Your task to perform on an android device: toggle pop-ups in chrome Image 0: 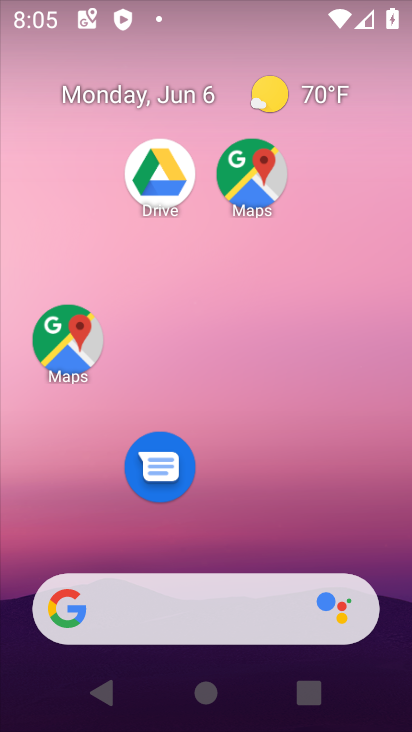
Step 0: drag from (188, 357) to (148, 185)
Your task to perform on an android device: toggle pop-ups in chrome Image 1: 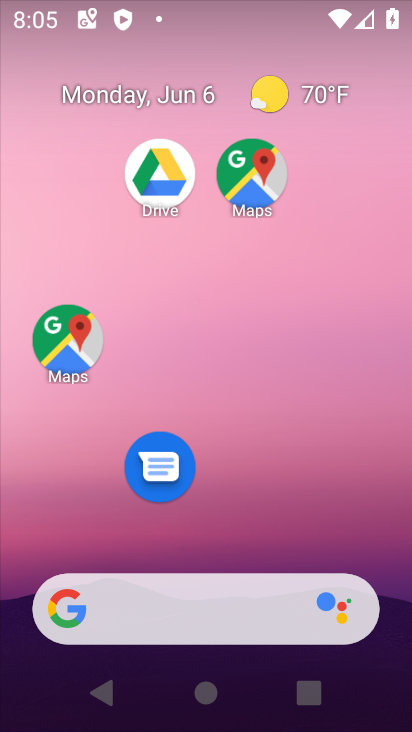
Step 1: drag from (247, 653) to (116, 45)
Your task to perform on an android device: toggle pop-ups in chrome Image 2: 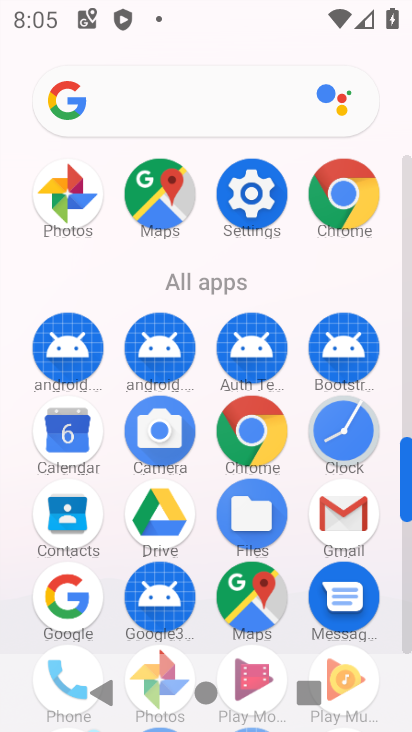
Step 2: click (342, 193)
Your task to perform on an android device: toggle pop-ups in chrome Image 3: 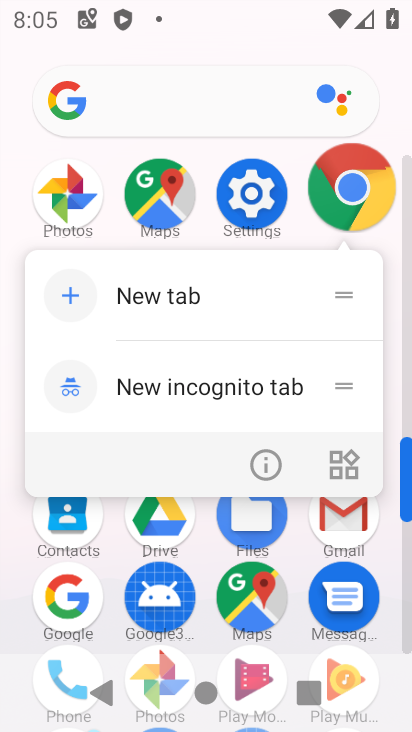
Step 3: click (344, 189)
Your task to perform on an android device: toggle pop-ups in chrome Image 4: 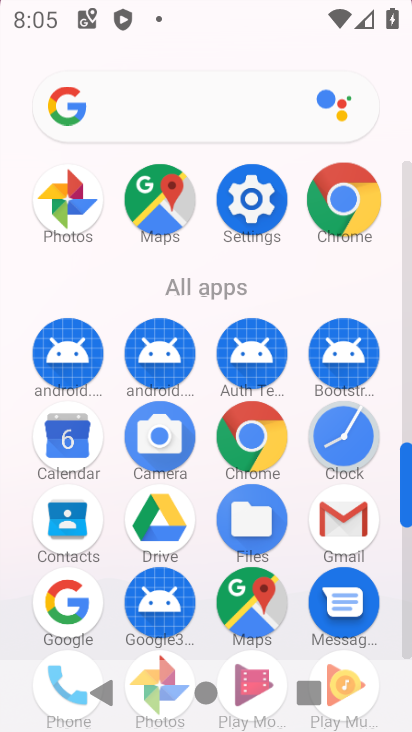
Step 4: click (345, 208)
Your task to perform on an android device: toggle pop-ups in chrome Image 5: 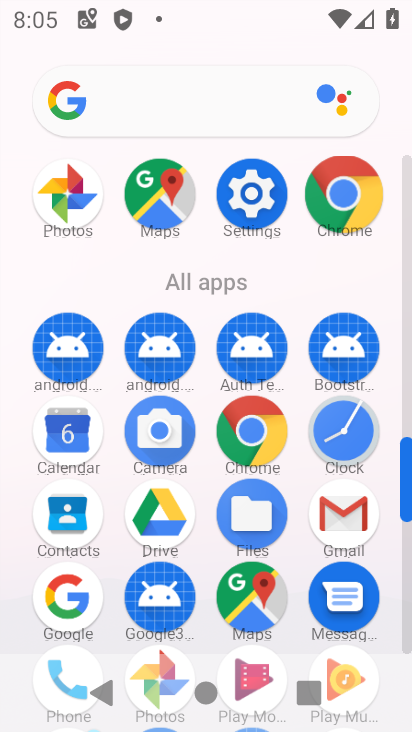
Step 5: click (331, 200)
Your task to perform on an android device: toggle pop-ups in chrome Image 6: 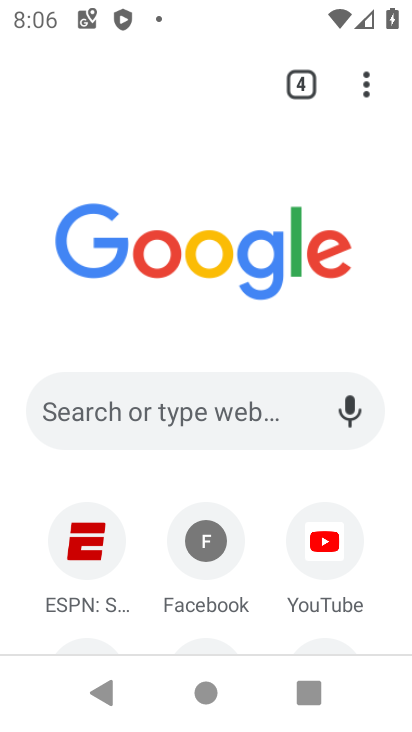
Step 6: click (339, 173)
Your task to perform on an android device: toggle pop-ups in chrome Image 7: 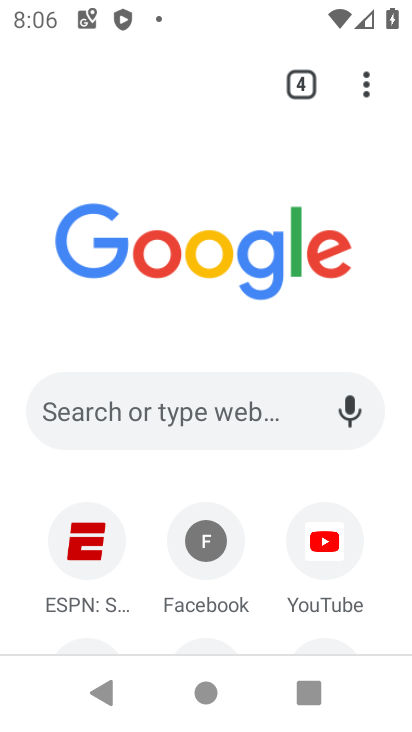
Step 7: click (360, 84)
Your task to perform on an android device: toggle pop-ups in chrome Image 8: 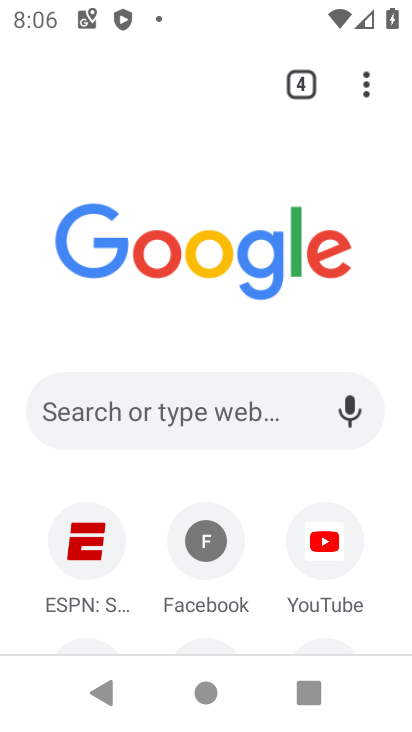
Step 8: click (361, 89)
Your task to perform on an android device: toggle pop-ups in chrome Image 9: 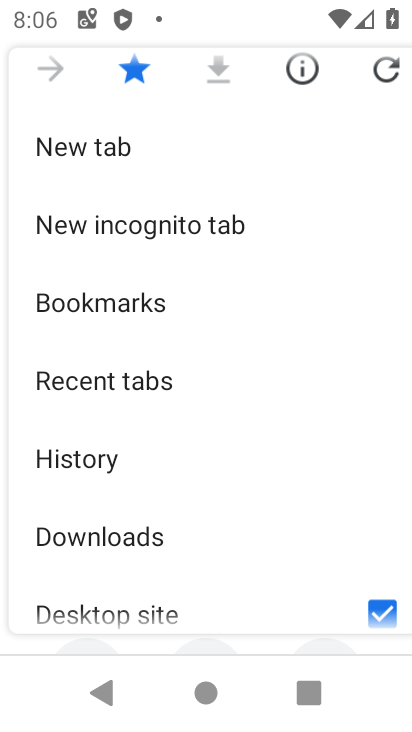
Step 9: click (369, 92)
Your task to perform on an android device: toggle pop-ups in chrome Image 10: 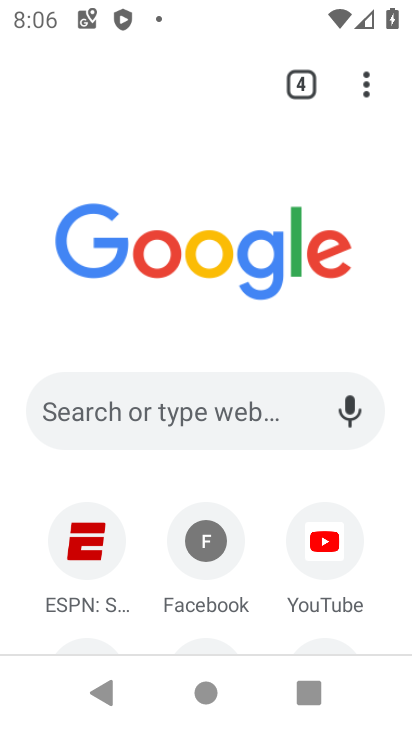
Step 10: drag from (373, 88) to (118, 513)
Your task to perform on an android device: toggle pop-ups in chrome Image 11: 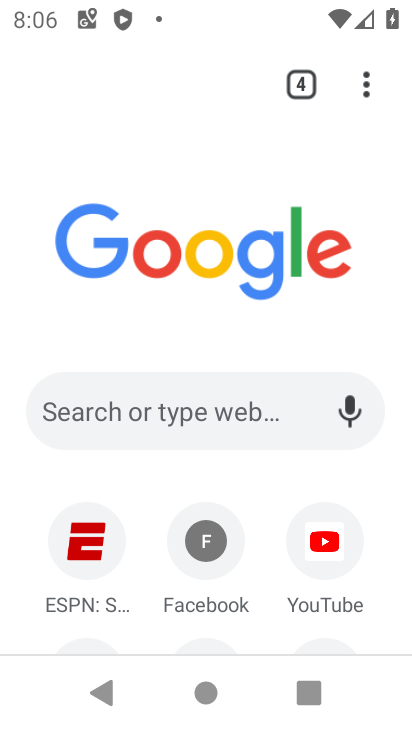
Step 11: click (119, 514)
Your task to perform on an android device: toggle pop-ups in chrome Image 12: 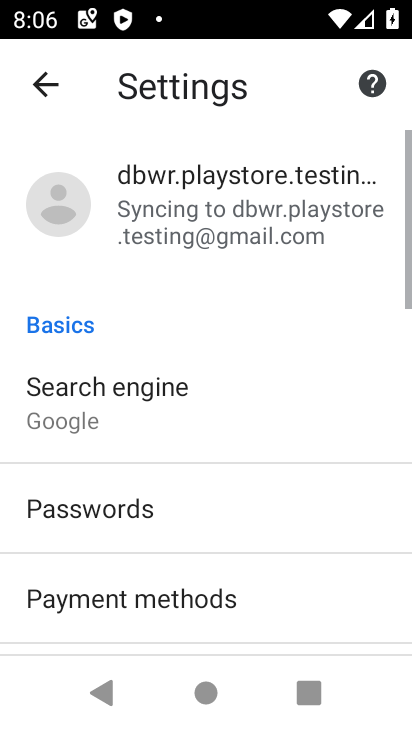
Step 12: drag from (234, 516) to (207, 181)
Your task to perform on an android device: toggle pop-ups in chrome Image 13: 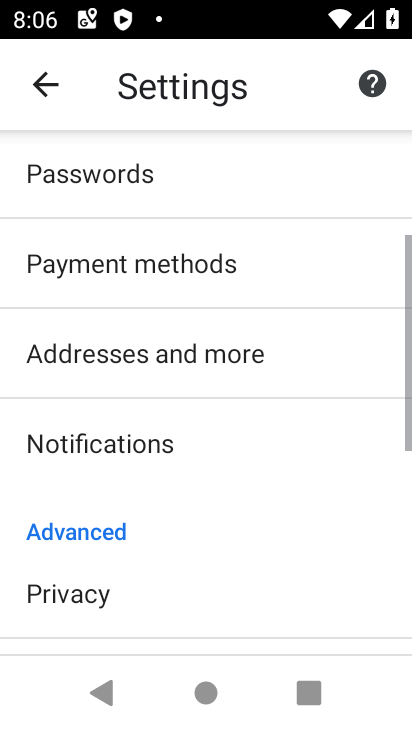
Step 13: drag from (232, 416) to (188, 10)
Your task to perform on an android device: toggle pop-ups in chrome Image 14: 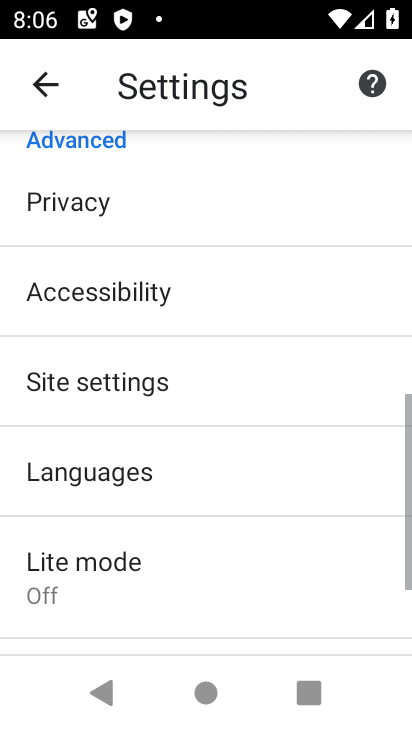
Step 14: drag from (192, 445) to (162, 215)
Your task to perform on an android device: toggle pop-ups in chrome Image 15: 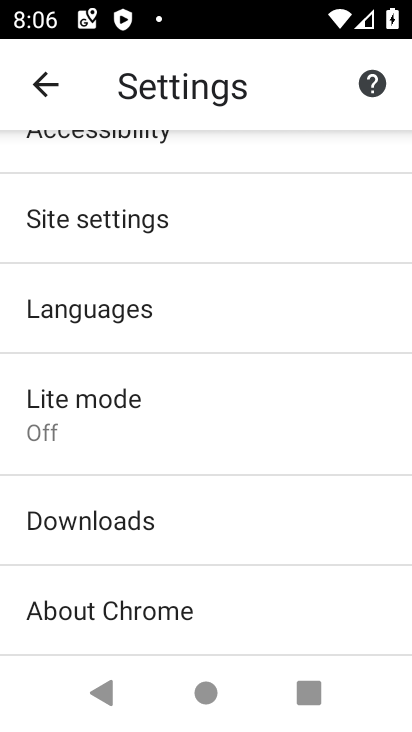
Step 15: click (86, 226)
Your task to perform on an android device: toggle pop-ups in chrome Image 16: 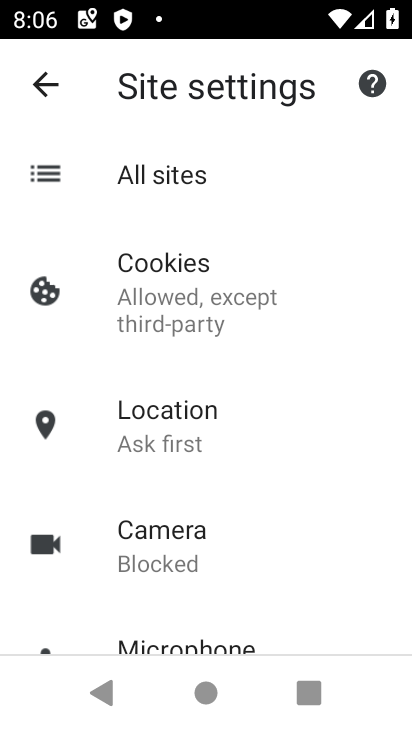
Step 16: drag from (220, 487) to (169, 161)
Your task to perform on an android device: toggle pop-ups in chrome Image 17: 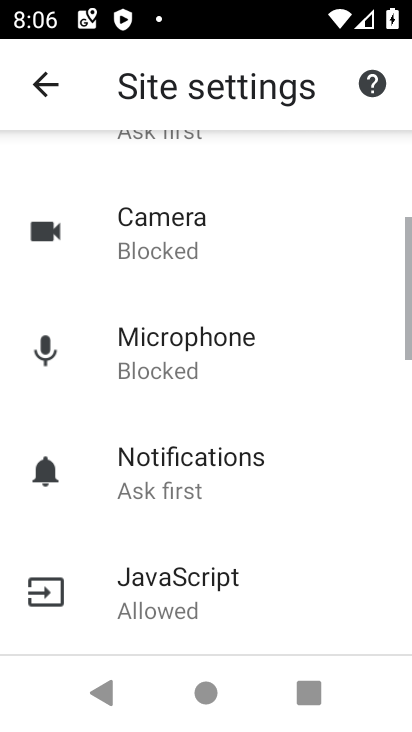
Step 17: drag from (195, 495) to (156, 208)
Your task to perform on an android device: toggle pop-ups in chrome Image 18: 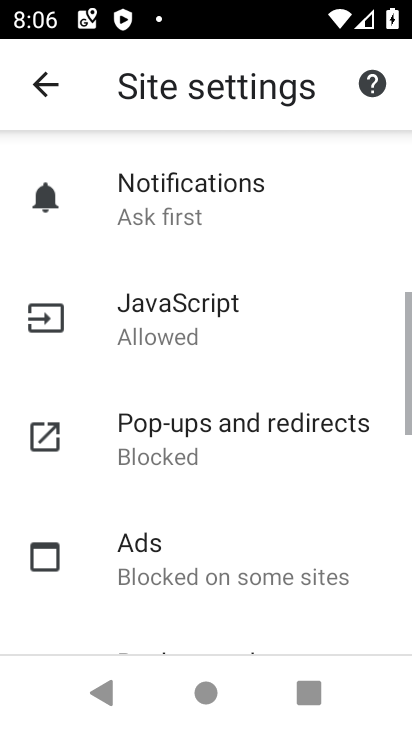
Step 18: drag from (210, 545) to (186, 353)
Your task to perform on an android device: toggle pop-ups in chrome Image 19: 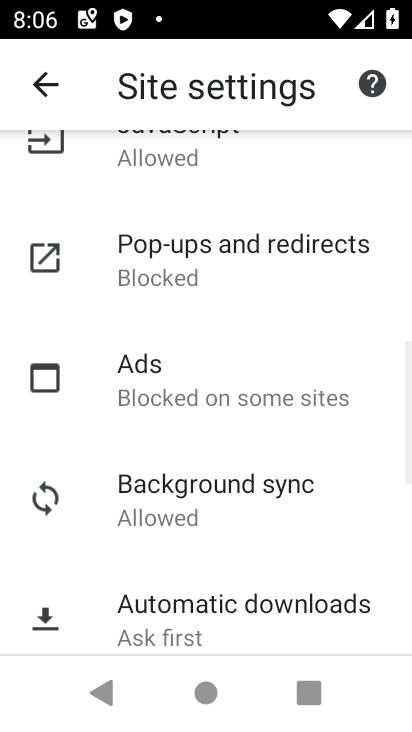
Step 19: click (176, 271)
Your task to perform on an android device: toggle pop-ups in chrome Image 20: 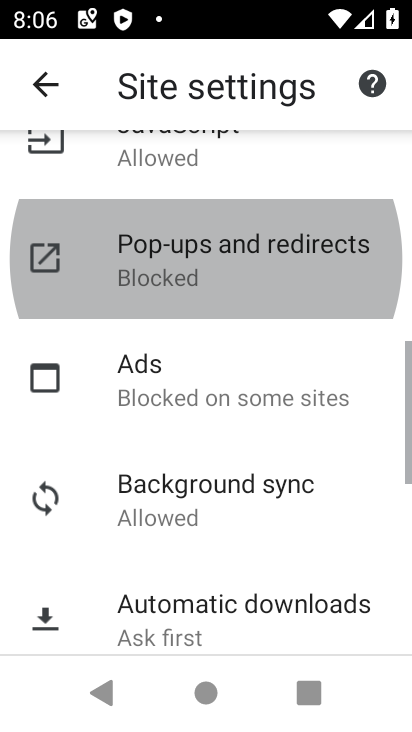
Step 20: click (176, 271)
Your task to perform on an android device: toggle pop-ups in chrome Image 21: 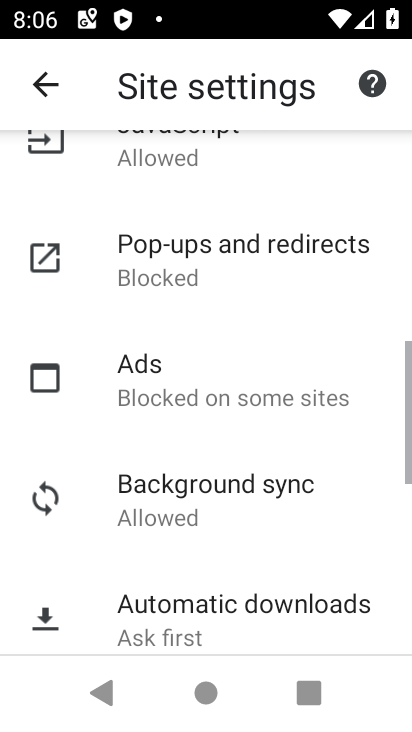
Step 21: click (176, 271)
Your task to perform on an android device: toggle pop-ups in chrome Image 22: 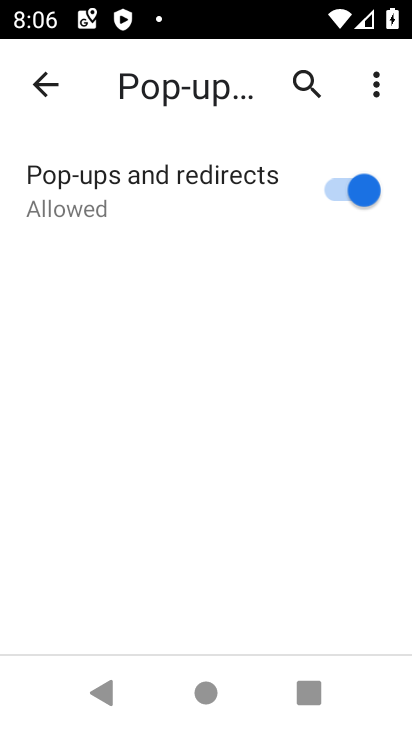
Step 22: click (359, 186)
Your task to perform on an android device: toggle pop-ups in chrome Image 23: 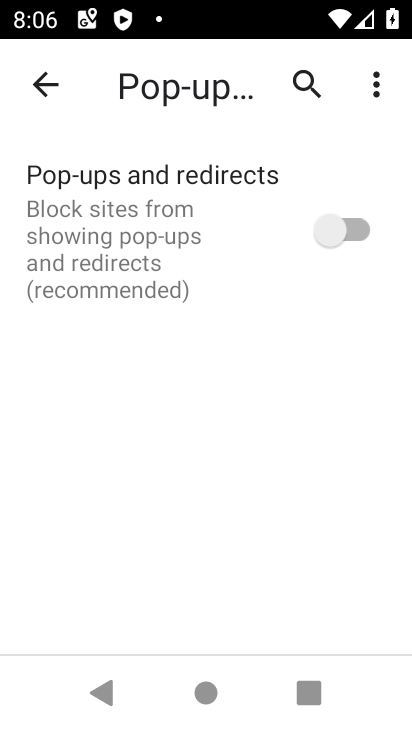
Step 23: task complete